Your task to perform on an android device: check out phone information Image 0: 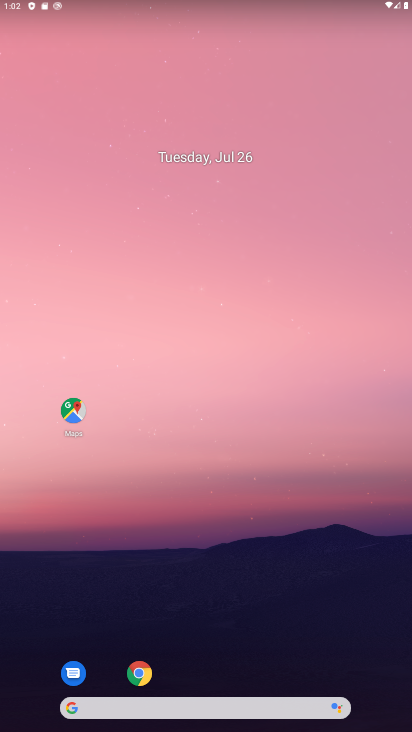
Step 0: drag from (205, 662) to (196, 110)
Your task to perform on an android device: check out phone information Image 1: 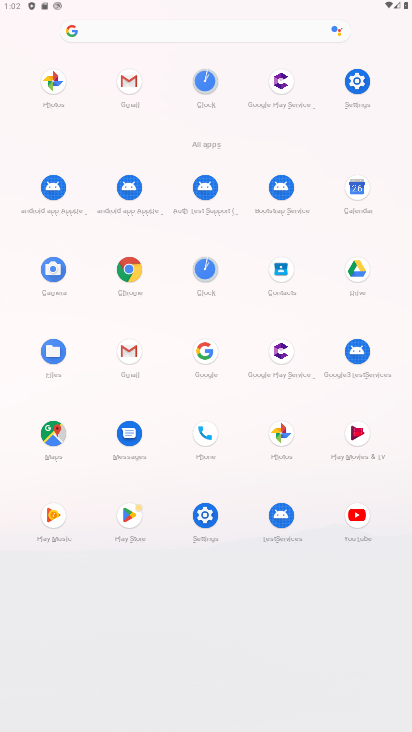
Step 1: click (201, 521)
Your task to perform on an android device: check out phone information Image 2: 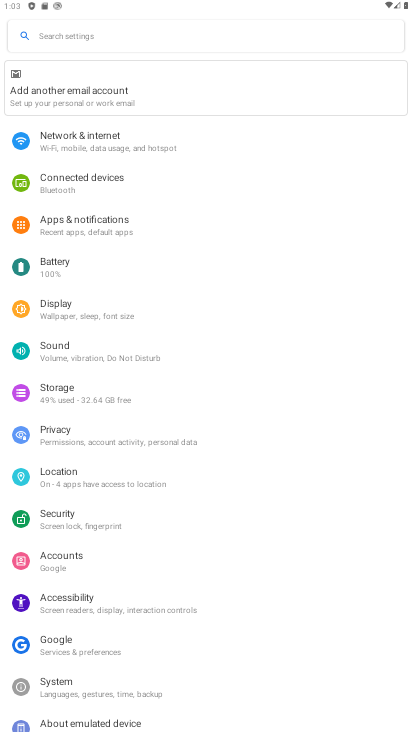
Step 2: drag from (132, 649) to (148, 103)
Your task to perform on an android device: check out phone information Image 3: 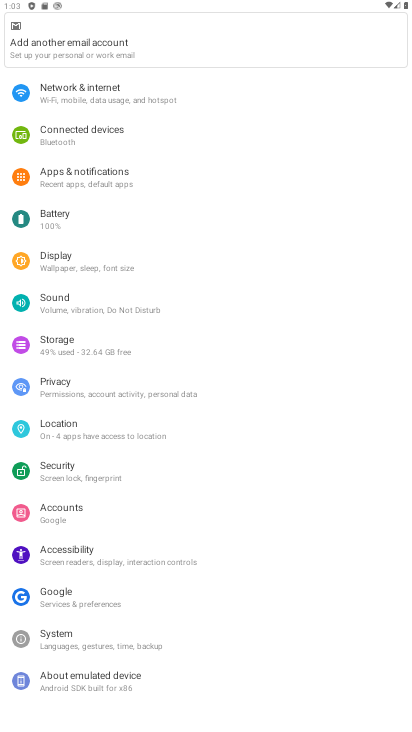
Step 3: click (149, 671)
Your task to perform on an android device: check out phone information Image 4: 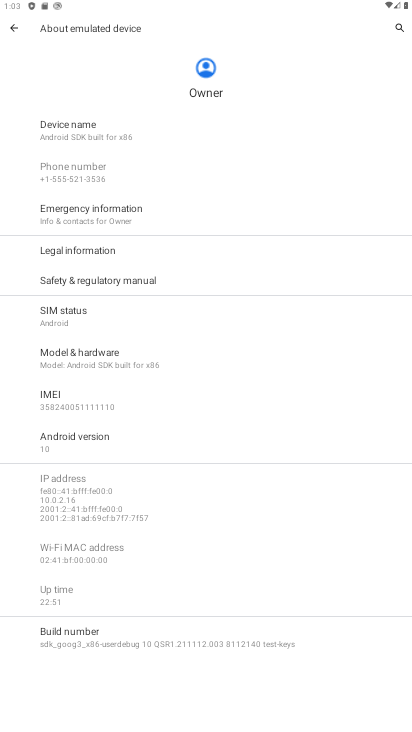
Step 4: task complete